Your task to perform on an android device: open a new tab in the chrome app Image 0: 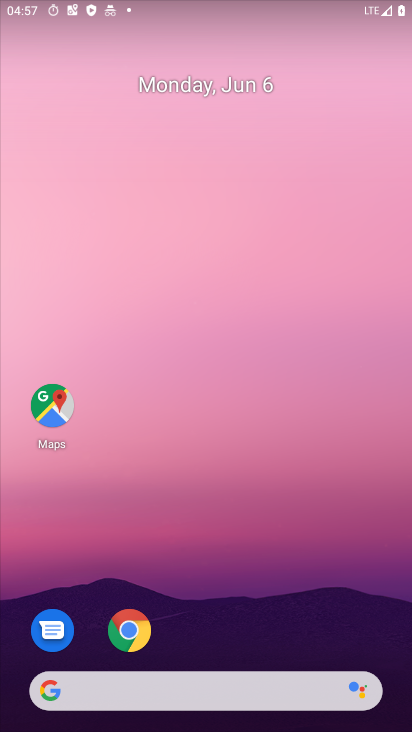
Step 0: drag from (238, 622) to (259, 82)
Your task to perform on an android device: open a new tab in the chrome app Image 1: 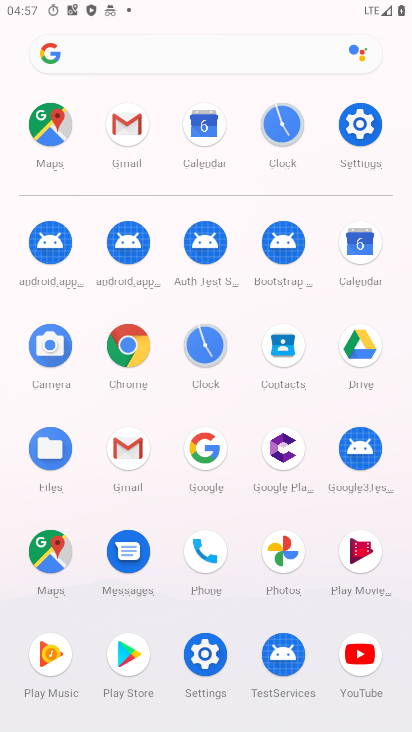
Step 1: click (133, 345)
Your task to perform on an android device: open a new tab in the chrome app Image 2: 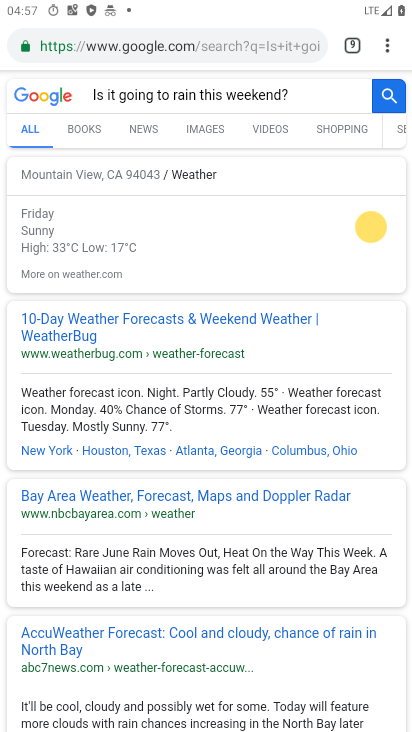
Step 2: task complete